Your task to perform on an android device: Find coffee shops on Maps Image 0: 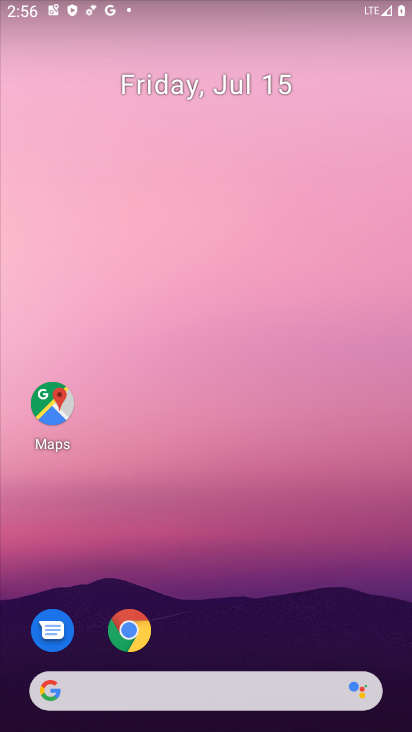
Step 0: click (45, 419)
Your task to perform on an android device: Find coffee shops on Maps Image 1: 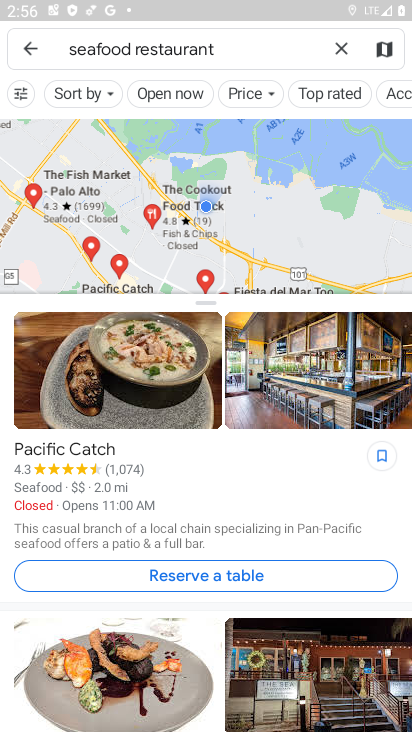
Step 1: click (332, 53)
Your task to perform on an android device: Find coffee shops on Maps Image 2: 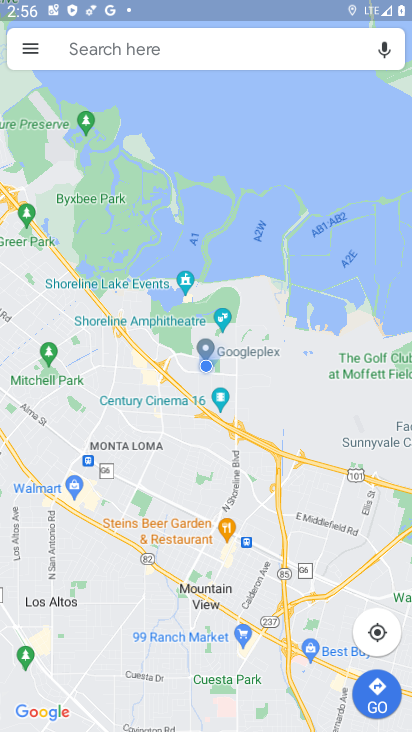
Step 2: click (266, 48)
Your task to perform on an android device: Find coffee shops on Maps Image 3: 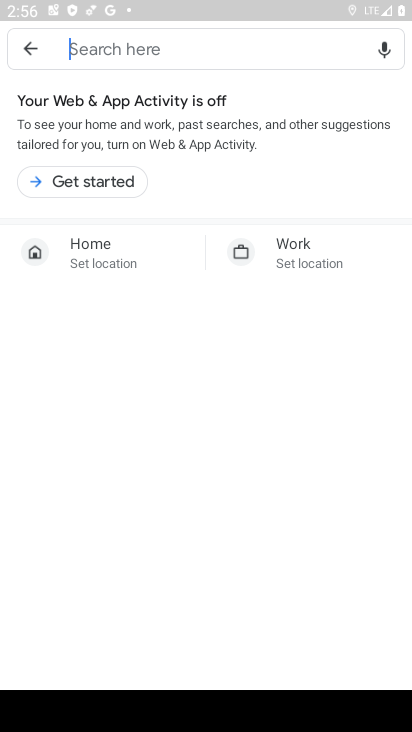
Step 3: type "coffee shops"
Your task to perform on an android device: Find coffee shops on Maps Image 4: 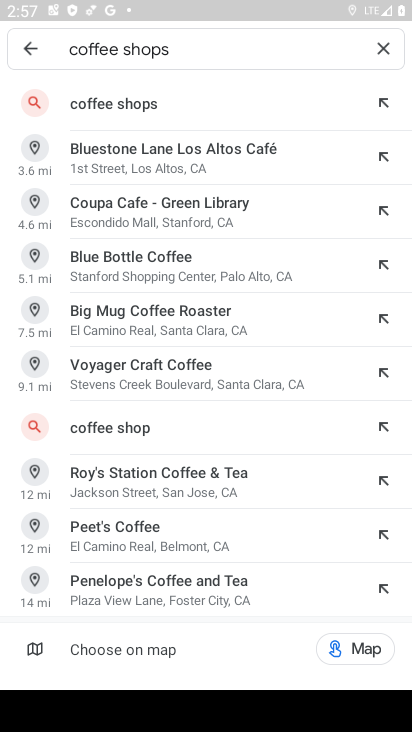
Step 4: click (98, 112)
Your task to perform on an android device: Find coffee shops on Maps Image 5: 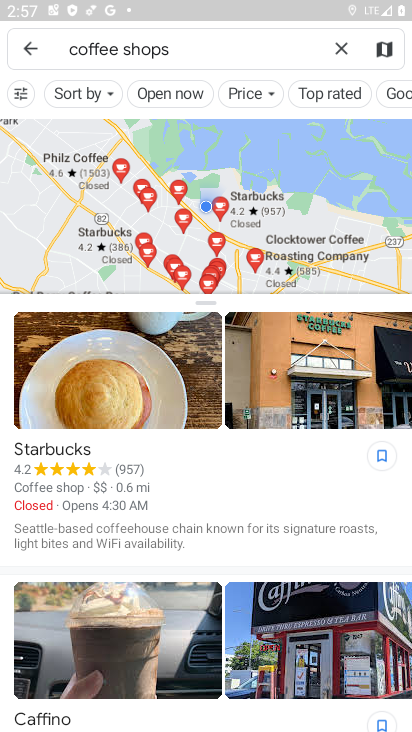
Step 5: task complete